Your task to perform on an android device: turn on notifications settings in the gmail app Image 0: 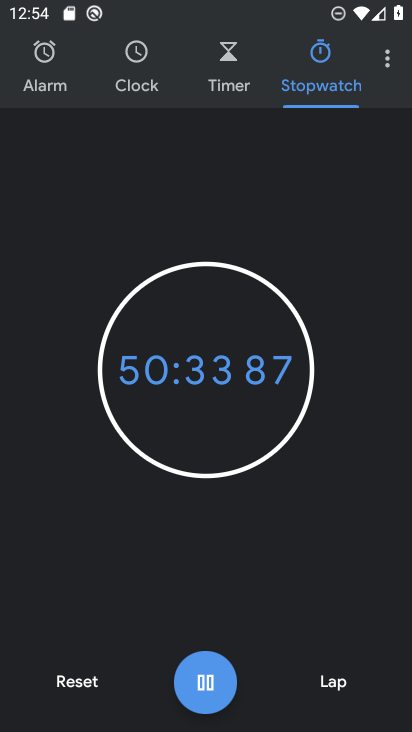
Step 0: press home button
Your task to perform on an android device: turn on notifications settings in the gmail app Image 1: 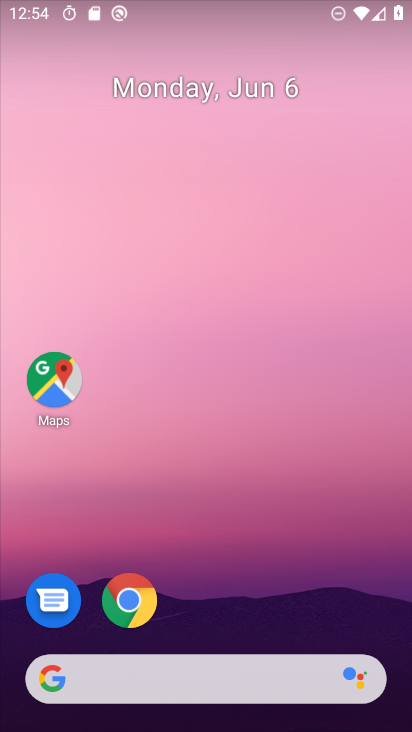
Step 1: drag from (233, 627) to (239, 194)
Your task to perform on an android device: turn on notifications settings in the gmail app Image 2: 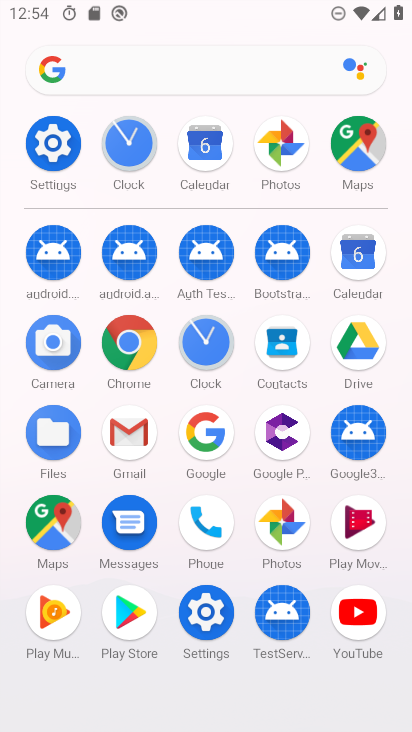
Step 2: click (117, 446)
Your task to perform on an android device: turn on notifications settings in the gmail app Image 3: 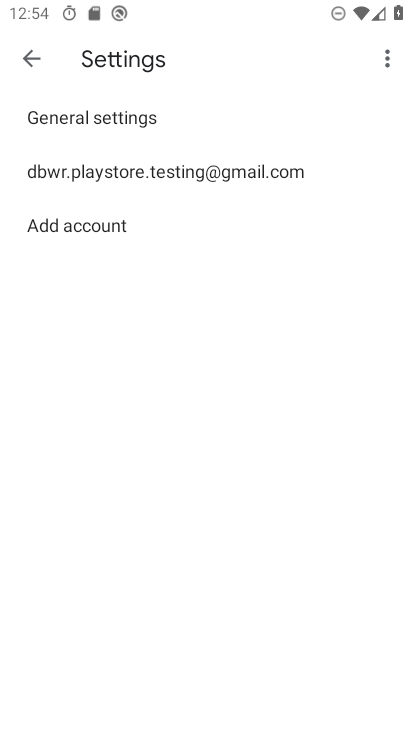
Step 3: click (22, 44)
Your task to perform on an android device: turn on notifications settings in the gmail app Image 4: 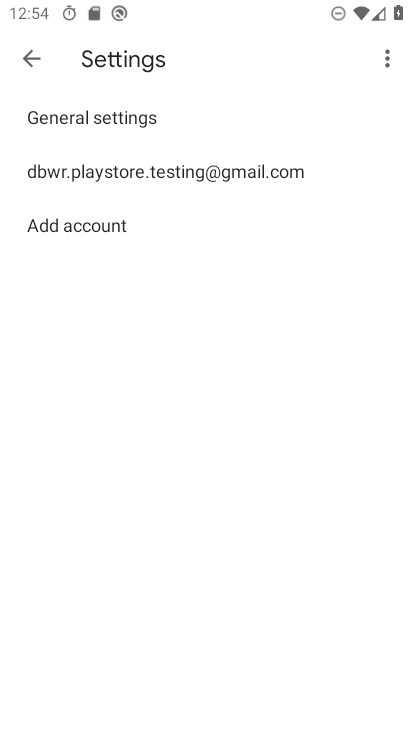
Step 4: click (22, 58)
Your task to perform on an android device: turn on notifications settings in the gmail app Image 5: 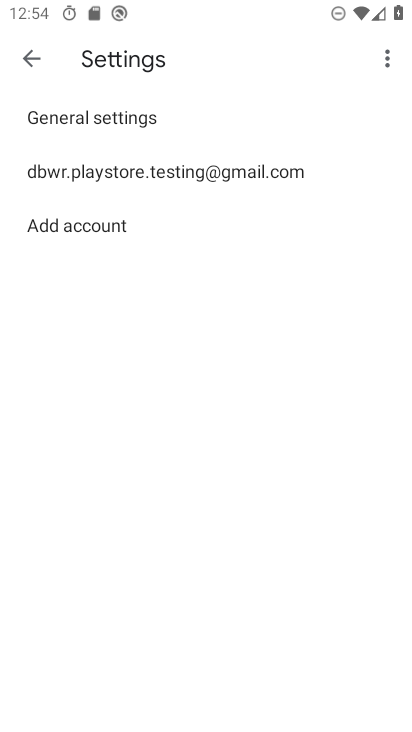
Step 5: click (31, 58)
Your task to perform on an android device: turn on notifications settings in the gmail app Image 6: 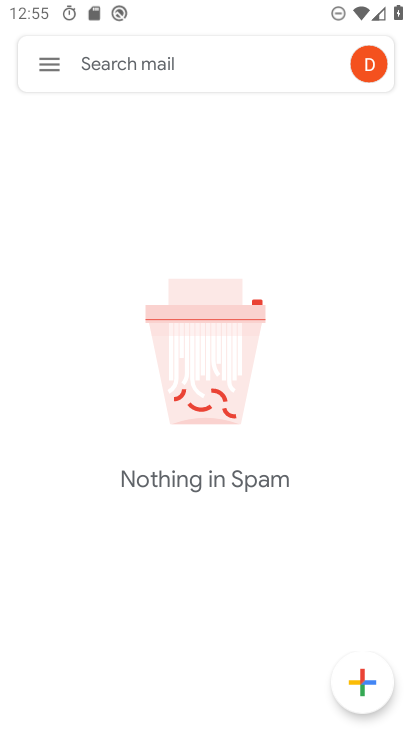
Step 6: click (31, 58)
Your task to perform on an android device: turn on notifications settings in the gmail app Image 7: 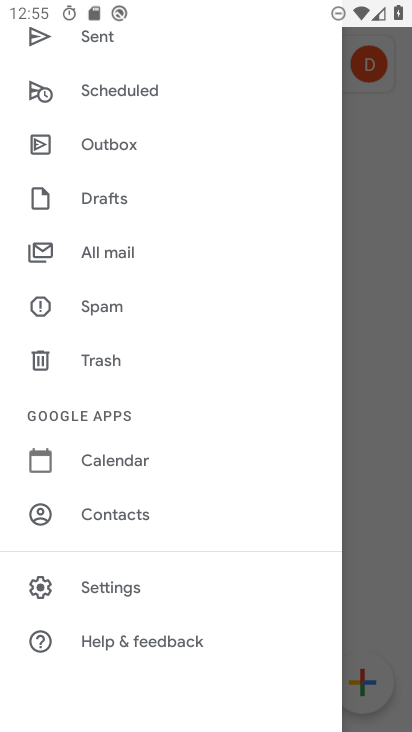
Step 7: click (125, 584)
Your task to perform on an android device: turn on notifications settings in the gmail app Image 8: 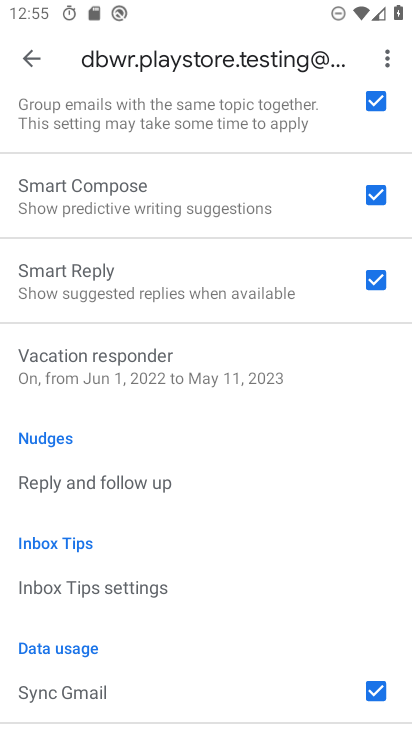
Step 8: drag from (199, 283) to (235, 557)
Your task to perform on an android device: turn on notifications settings in the gmail app Image 9: 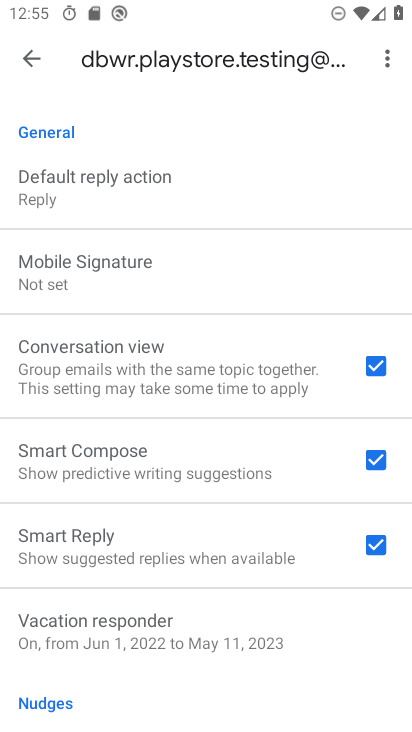
Step 9: drag from (195, 241) to (246, 537)
Your task to perform on an android device: turn on notifications settings in the gmail app Image 10: 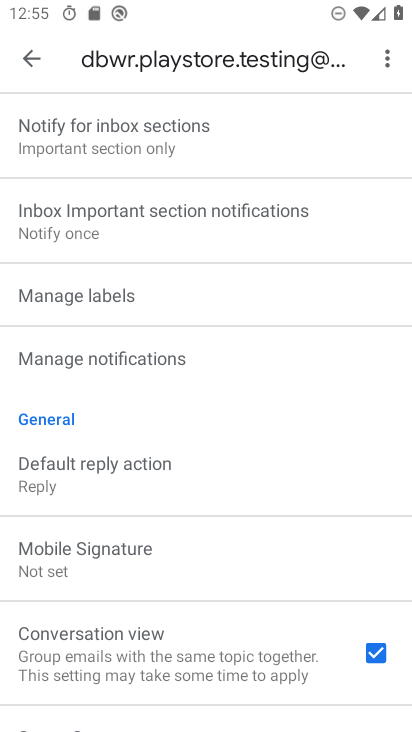
Step 10: click (181, 375)
Your task to perform on an android device: turn on notifications settings in the gmail app Image 11: 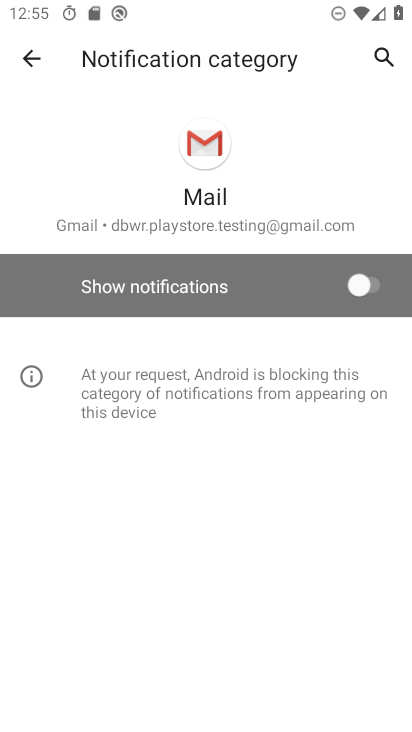
Step 11: click (367, 288)
Your task to perform on an android device: turn on notifications settings in the gmail app Image 12: 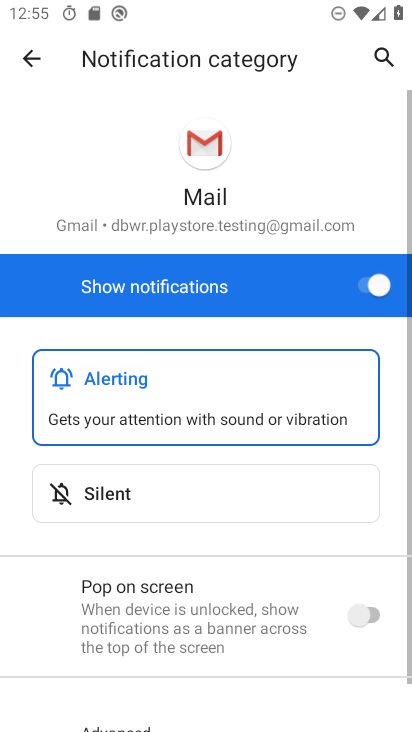
Step 12: task complete